Your task to perform on an android device: turn off sleep mode Image 0: 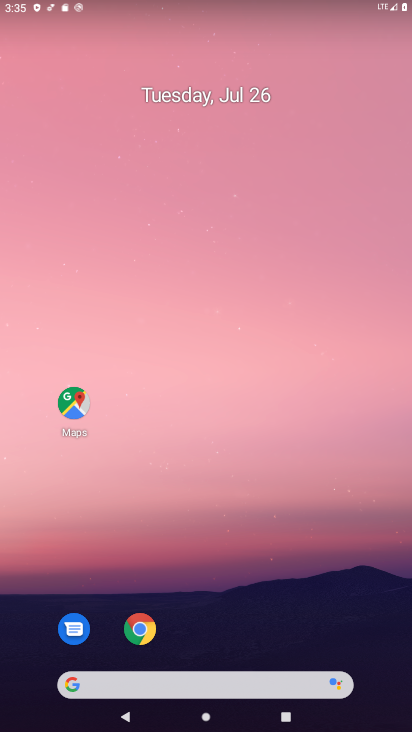
Step 0: drag from (238, 724) to (234, 137)
Your task to perform on an android device: turn off sleep mode Image 1: 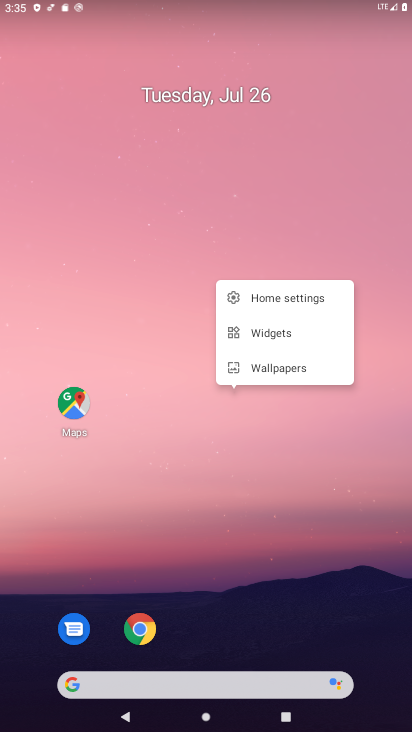
Step 1: click (228, 515)
Your task to perform on an android device: turn off sleep mode Image 2: 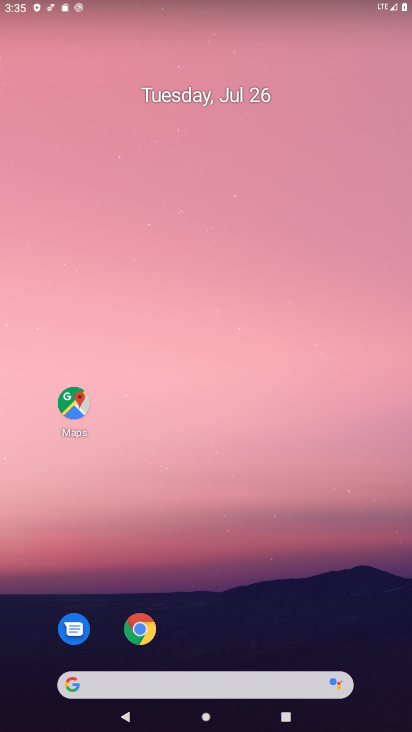
Step 2: drag from (234, 726) to (270, 21)
Your task to perform on an android device: turn off sleep mode Image 3: 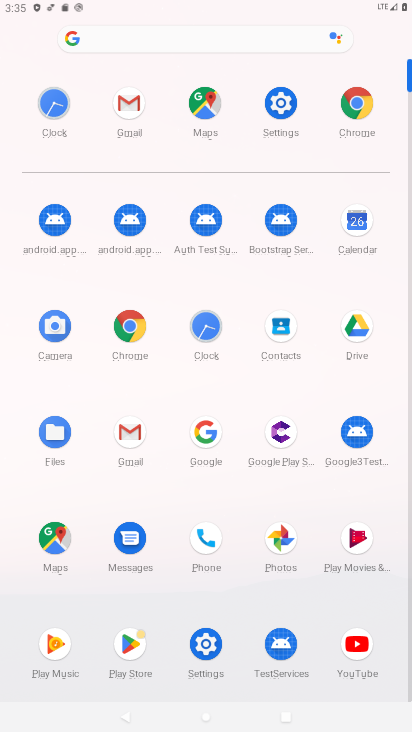
Step 3: click (286, 104)
Your task to perform on an android device: turn off sleep mode Image 4: 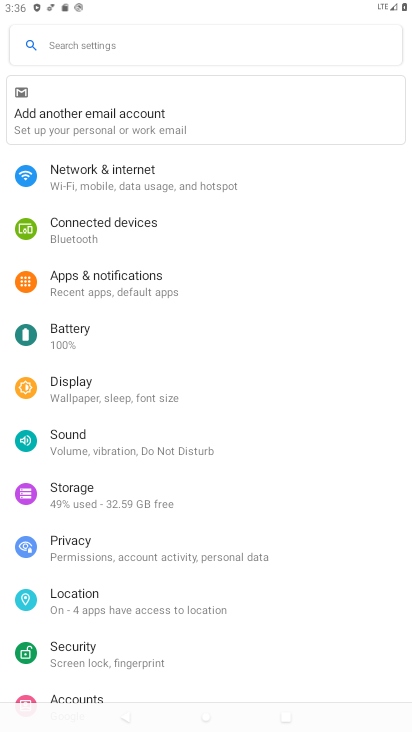
Step 4: click (87, 399)
Your task to perform on an android device: turn off sleep mode Image 5: 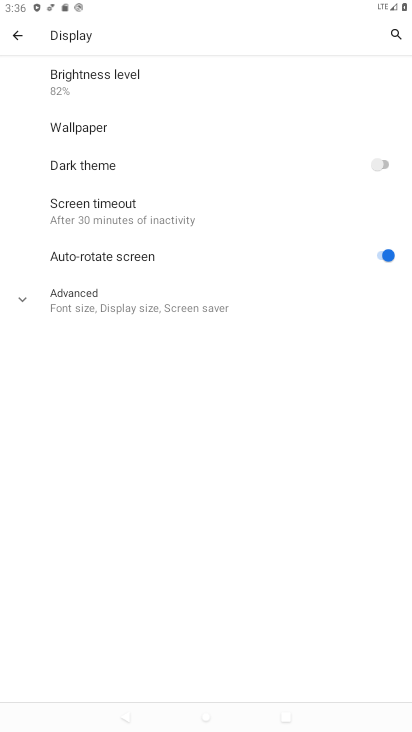
Step 5: task complete